Your task to perform on an android device: What is the recent news? Image 0: 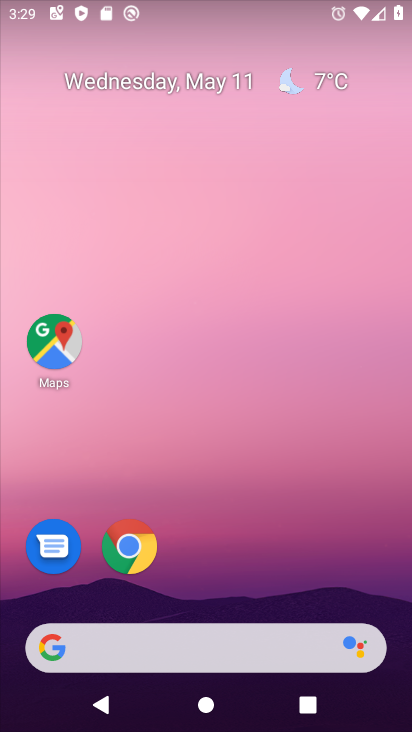
Step 0: drag from (216, 644) to (214, 0)
Your task to perform on an android device: What is the recent news? Image 1: 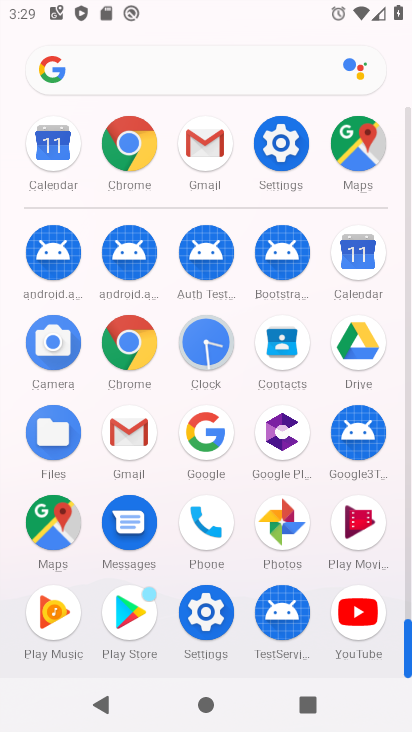
Step 1: click (135, 348)
Your task to perform on an android device: What is the recent news? Image 2: 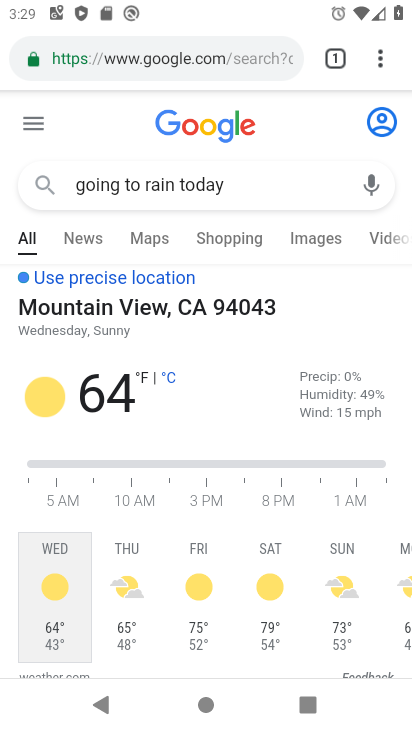
Step 2: click (251, 64)
Your task to perform on an android device: What is the recent news? Image 3: 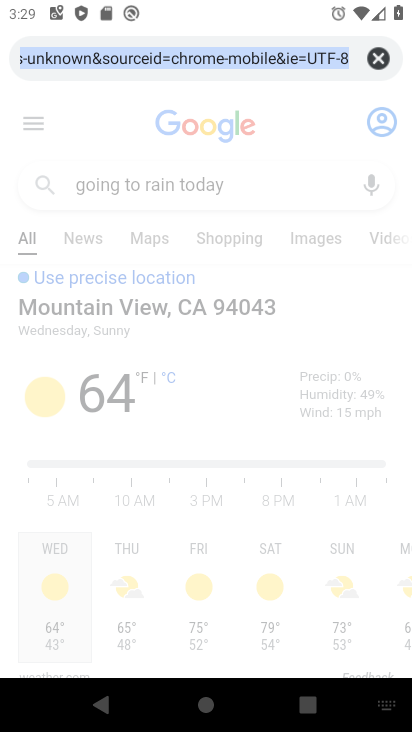
Step 3: click (377, 59)
Your task to perform on an android device: What is the recent news? Image 4: 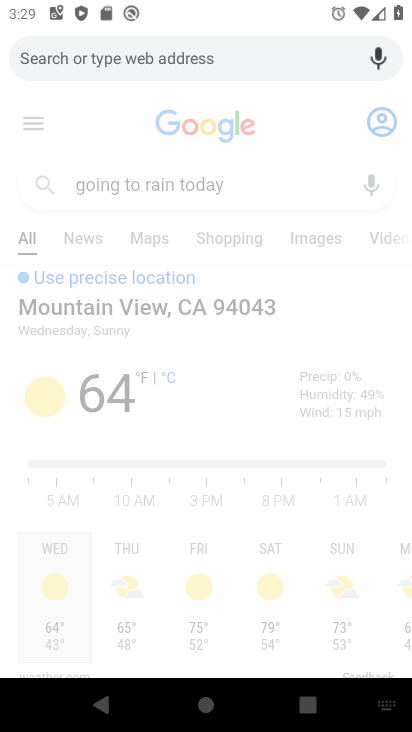
Step 4: type "what is the recent news"
Your task to perform on an android device: What is the recent news? Image 5: 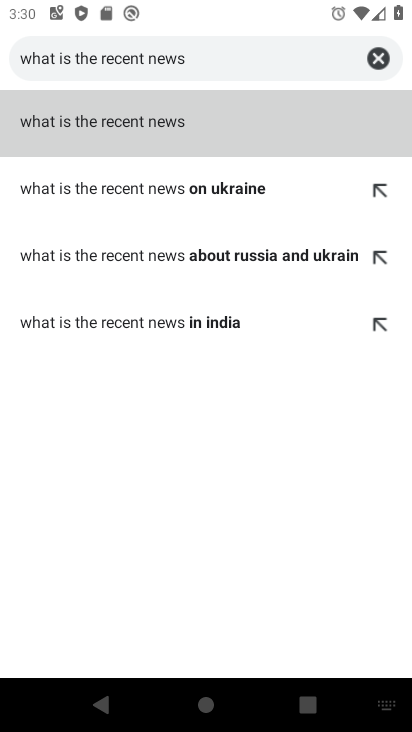
Step 5: click (226, 131)
Your task to perform on an android device: What is the recent news? Image 6: 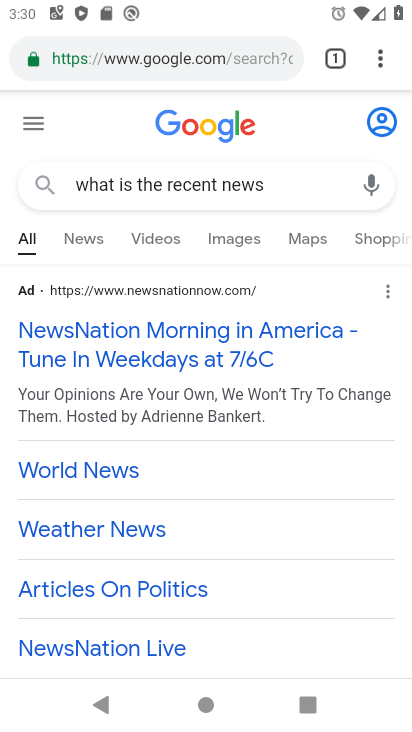
Step 6: task complete